Your task to perform on an android device: Open CNN.com Image 0: 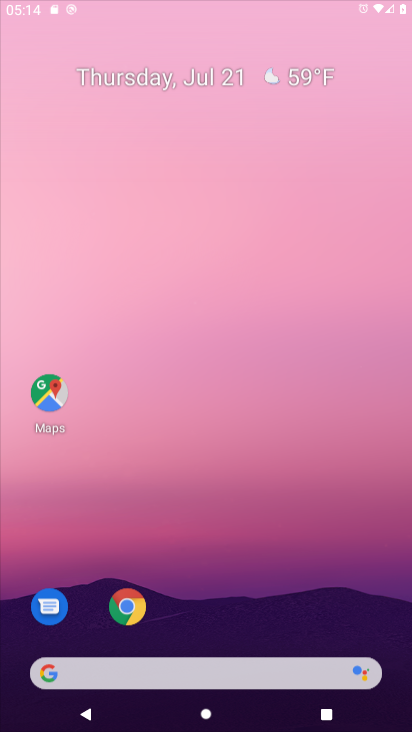
Step 0: drag from (282, 664) to (333, 1)
Your task to perform on an android device: Open CNN.com Image 1: 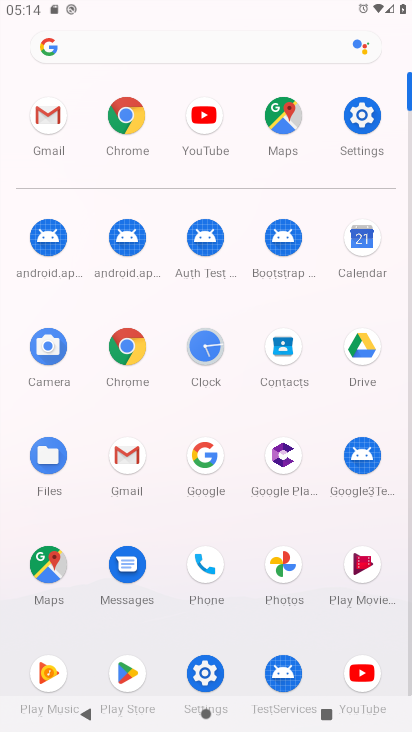
Step 1: click (130, 338)
Your task to perform on an android device: Open CNN.com Image 2: 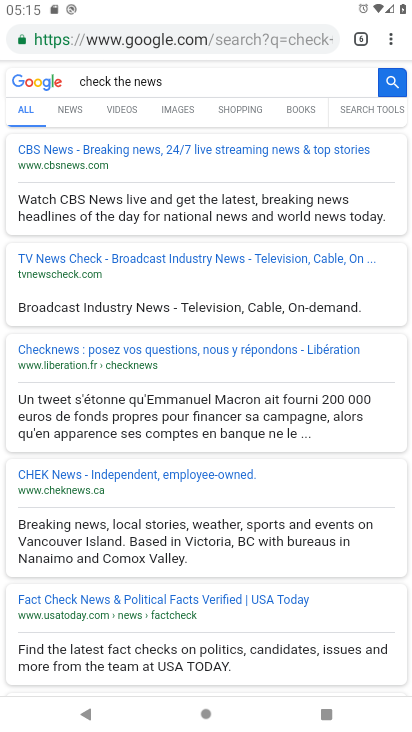
Step 2: click (129, 36)
Your task to perform on an android device: Open CNN.com Image 3: 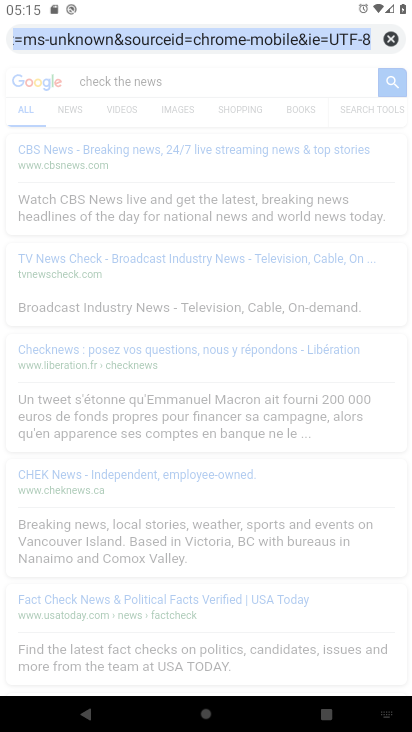
Step 3: type "cnn.com"
Your task to perform on an android device: Open CNN.com Image 4: 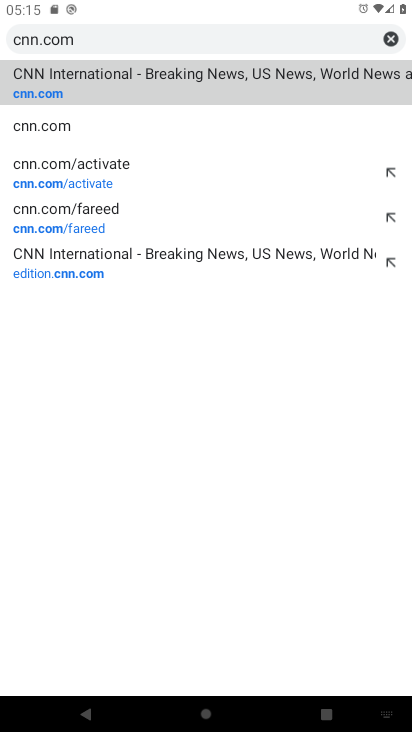
Step 4: click (14, 77)
Your task to perform on an android device: Open CNN.com Image 5: 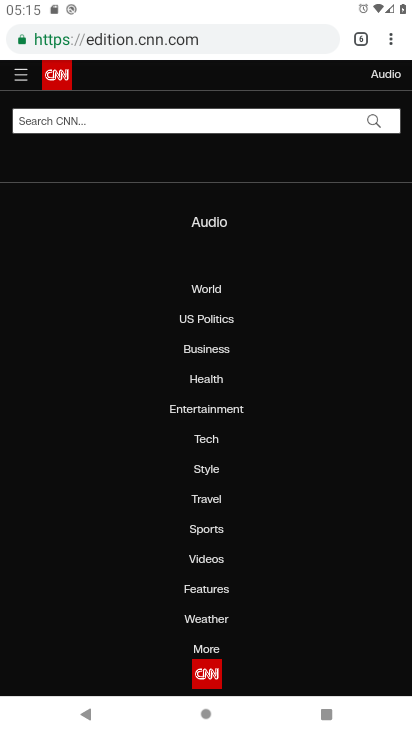
Step 5: task complete